Your task to perform on an android device: toggle wifi Image 0: 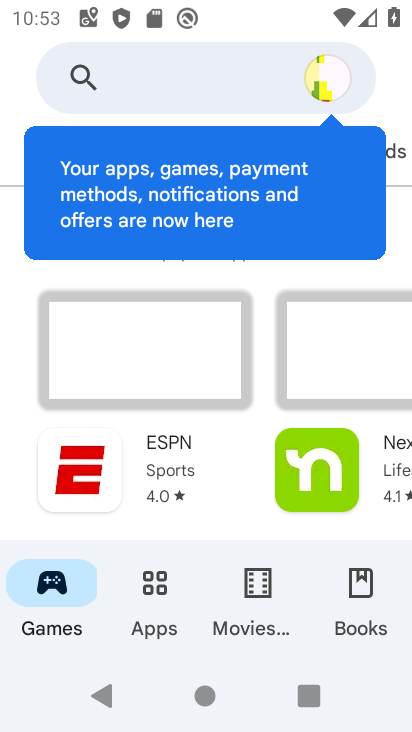
Step 0: press home button
Your task to perform on an android device: toggle wifi Image 1: 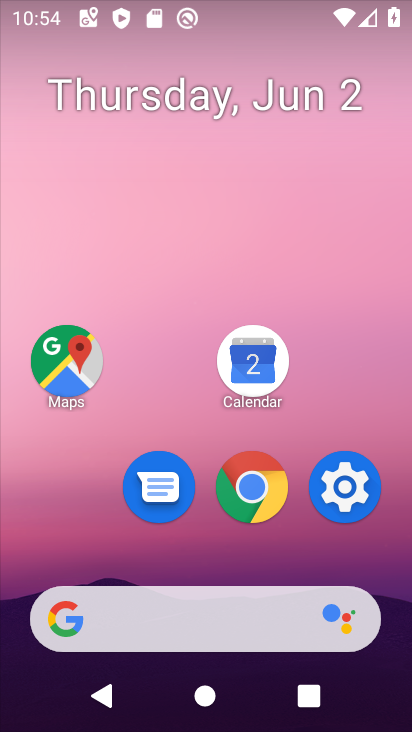
Step 1: drag from (227, 636) to (181, 152)
Your task to perform on an android device: toggle wifi Image 2: 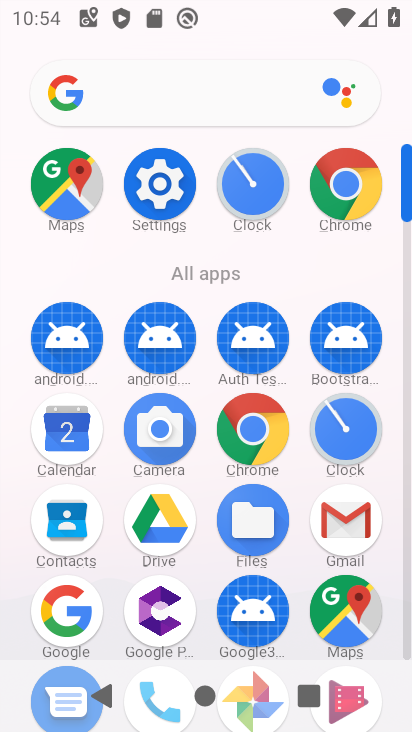
Step 2: click (132, 161)
Your task to perform on an android device: toggle wifi Image 3: 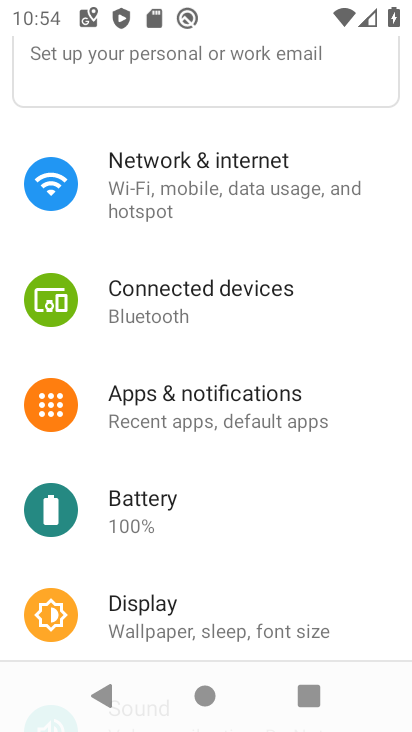
Step 3: click (168, 171)
Your task to perform on an android device: toggle wifi Image 4: 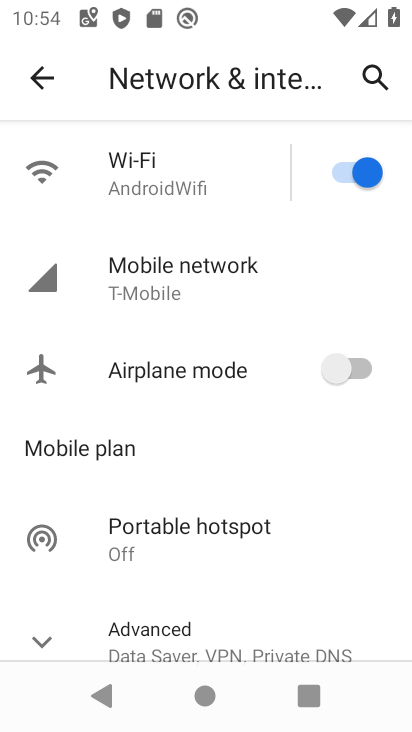
Step 4: click (166, 171)
Your task to perform on an android device: toggle wifi Image 5: 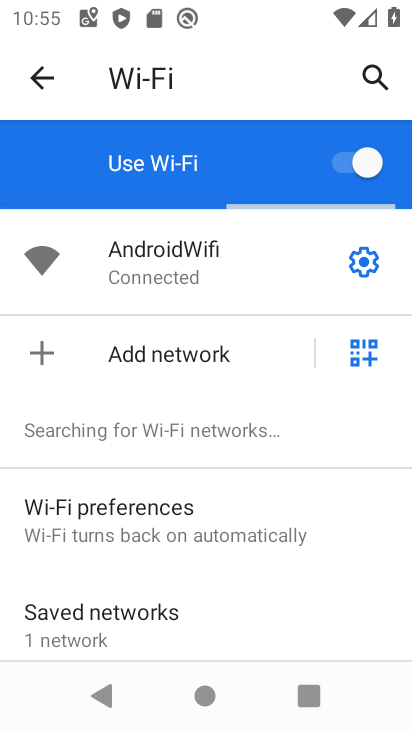
Step 5: task complete